Your task to perform on an android device: delete the emails in spam in the gmail app Image 0: 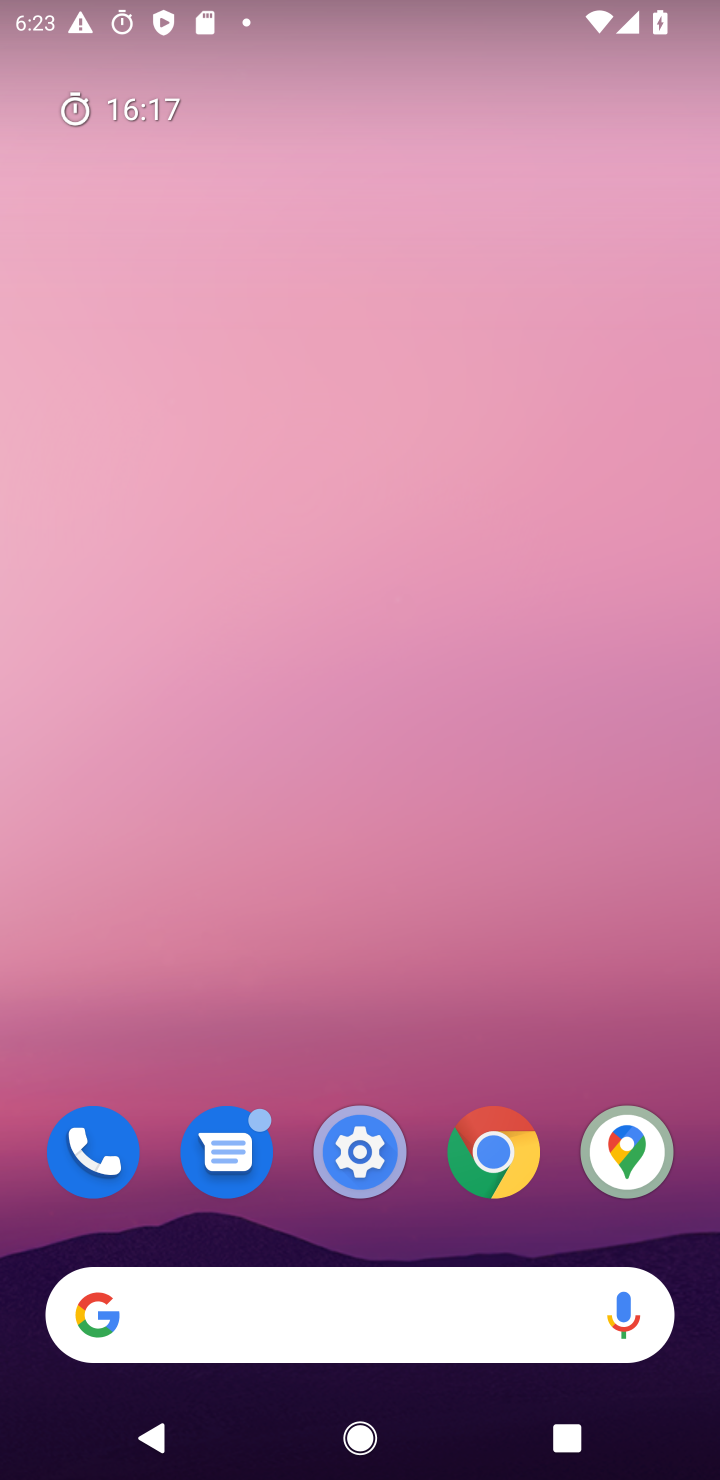
Step 0: drag from (447, 879) to (479, 223)
Your task to perform on an android device: delete the emails in spam in the gmail app Image 1: 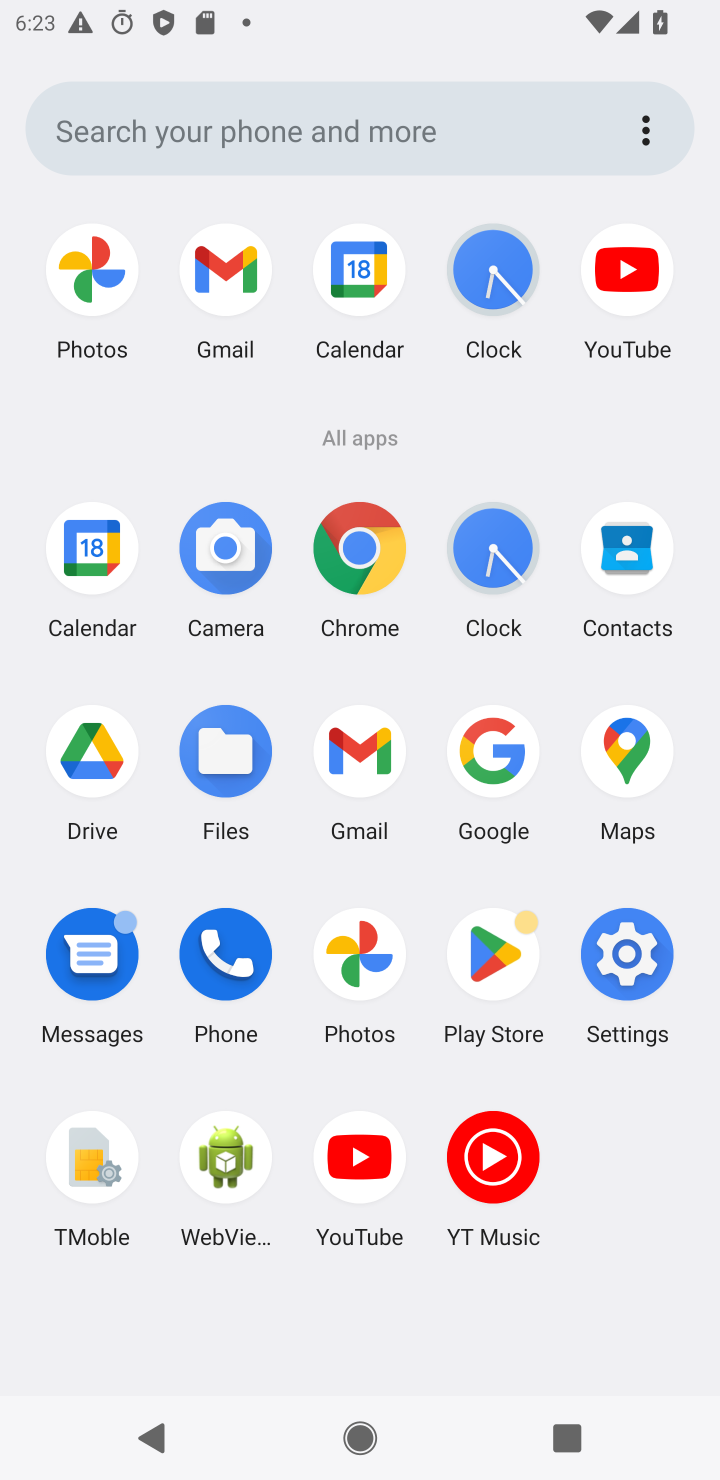
Step 1: click (357, 747)
Your task to perform on an android device: delete the emails in spam in the gmail app Image 2: 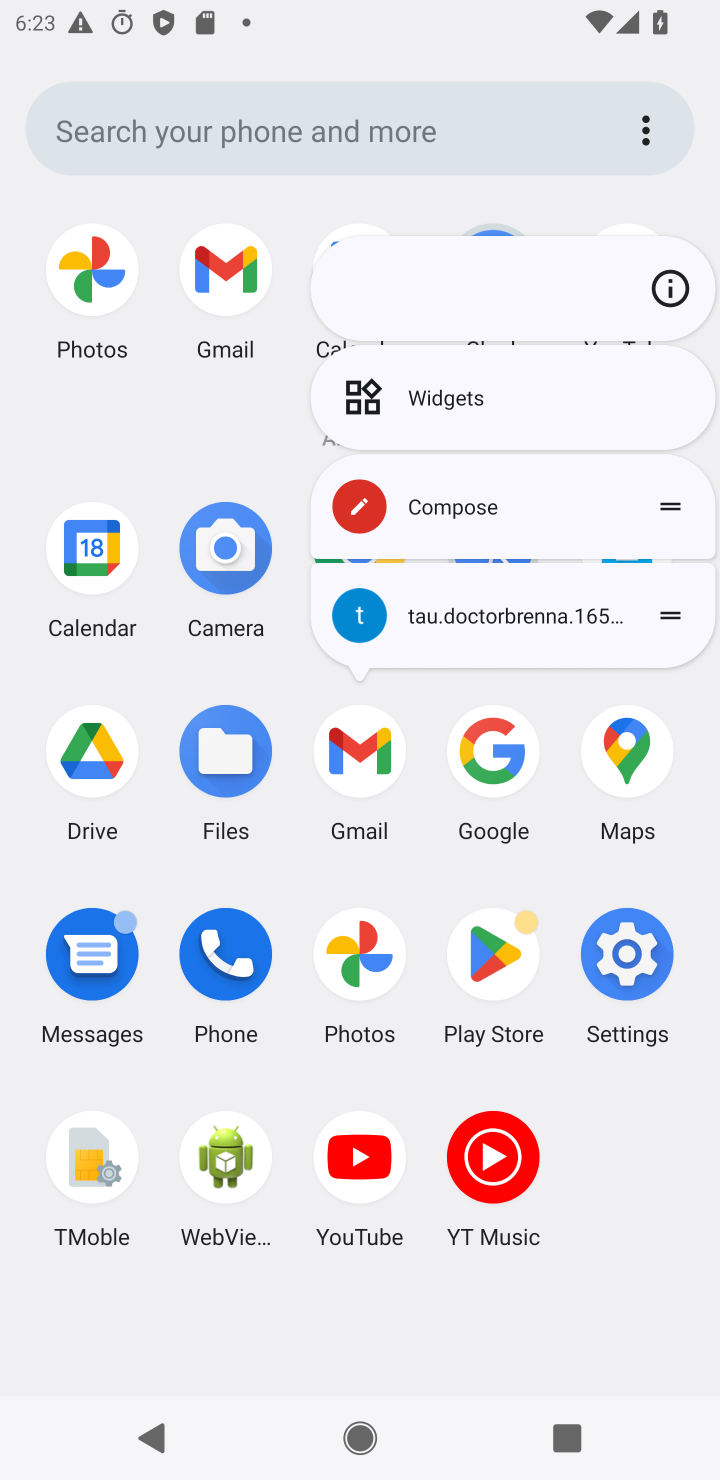
Step 2: click (358, 751)
Your task to perform on an android device: delete the emails in spam in the gmail app Image 3: 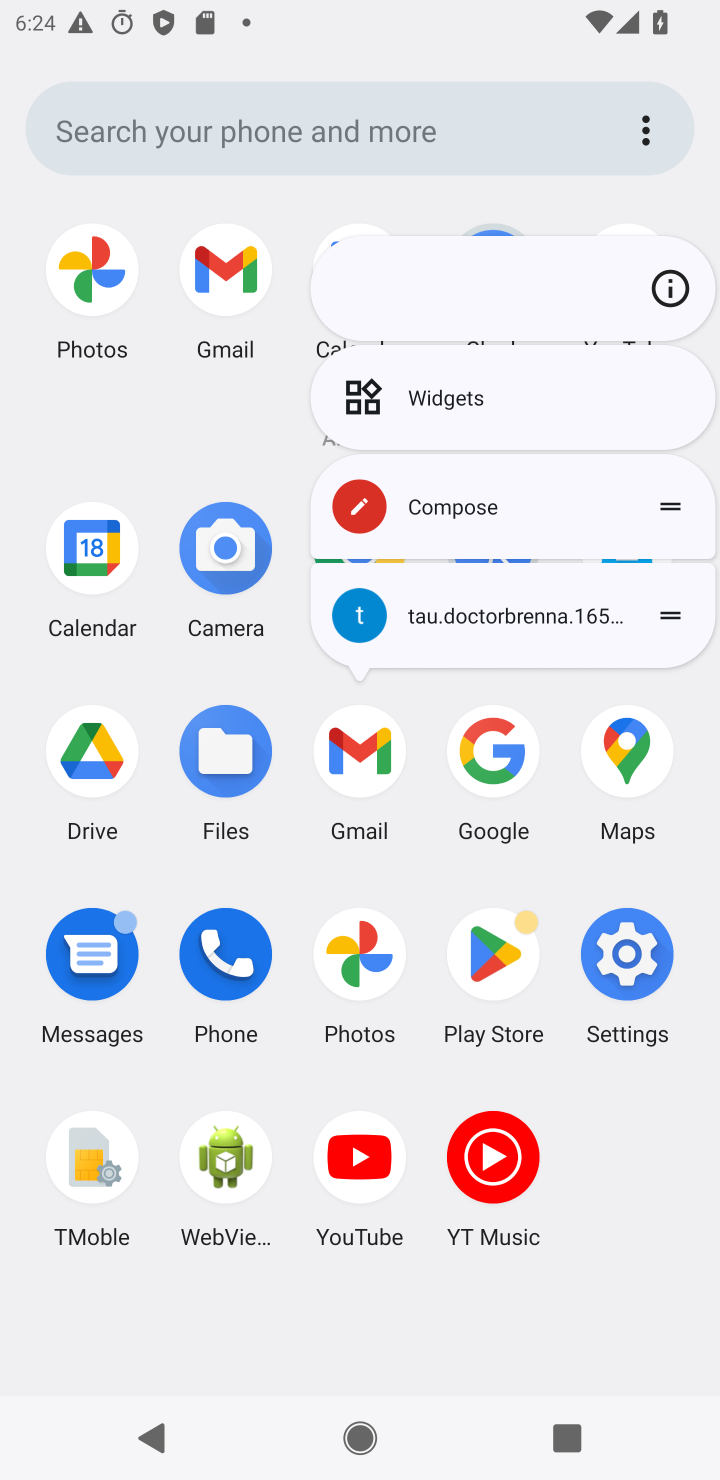
Step 3: click (347, 757)
Your task to perform on an android device: delete the emails in spam in the gmail app Image 4: 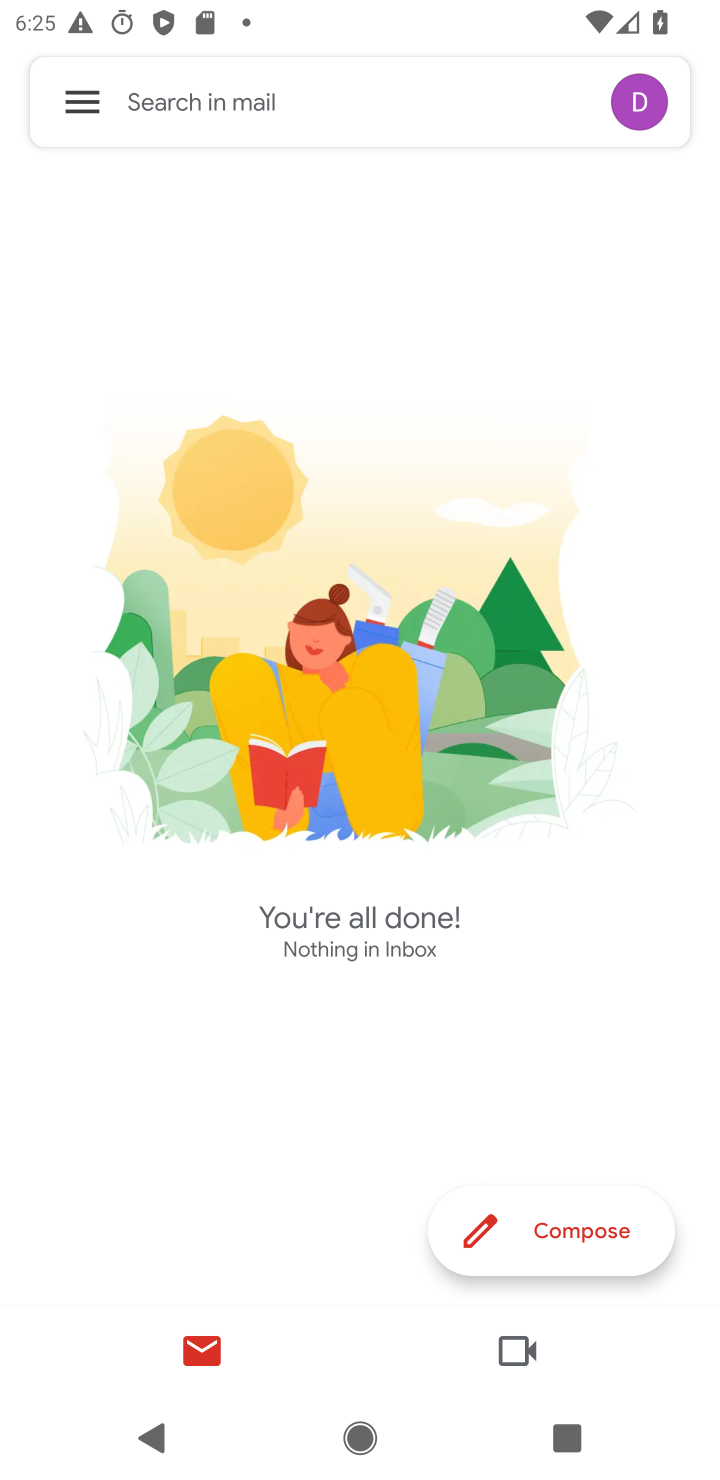
Step 4: click (82, 86)
Your task to perform on an android device: delete the emails in spam in the gmail app Image 5: 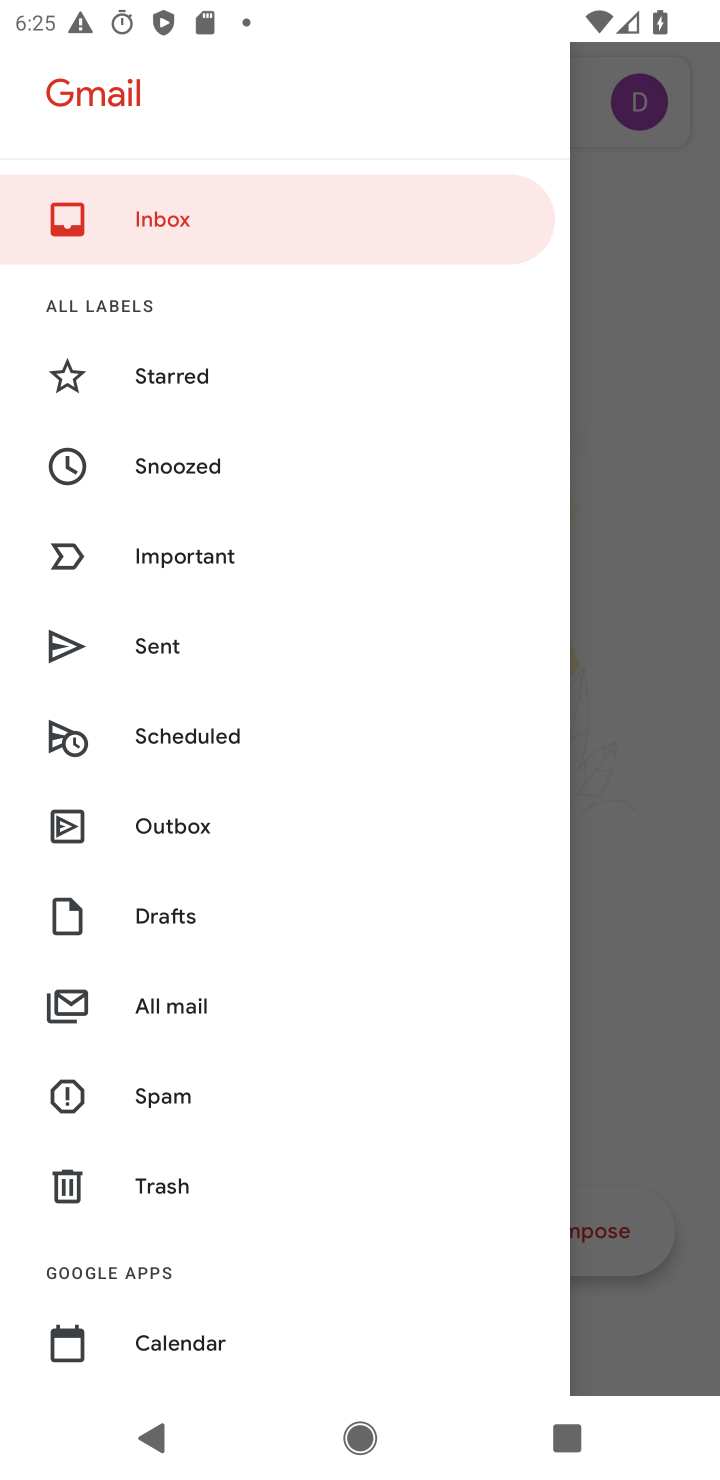
Step 5: click (173, 1098)
Your task to perform on an android device: delete the emails in spam in the gmail app Image 6: 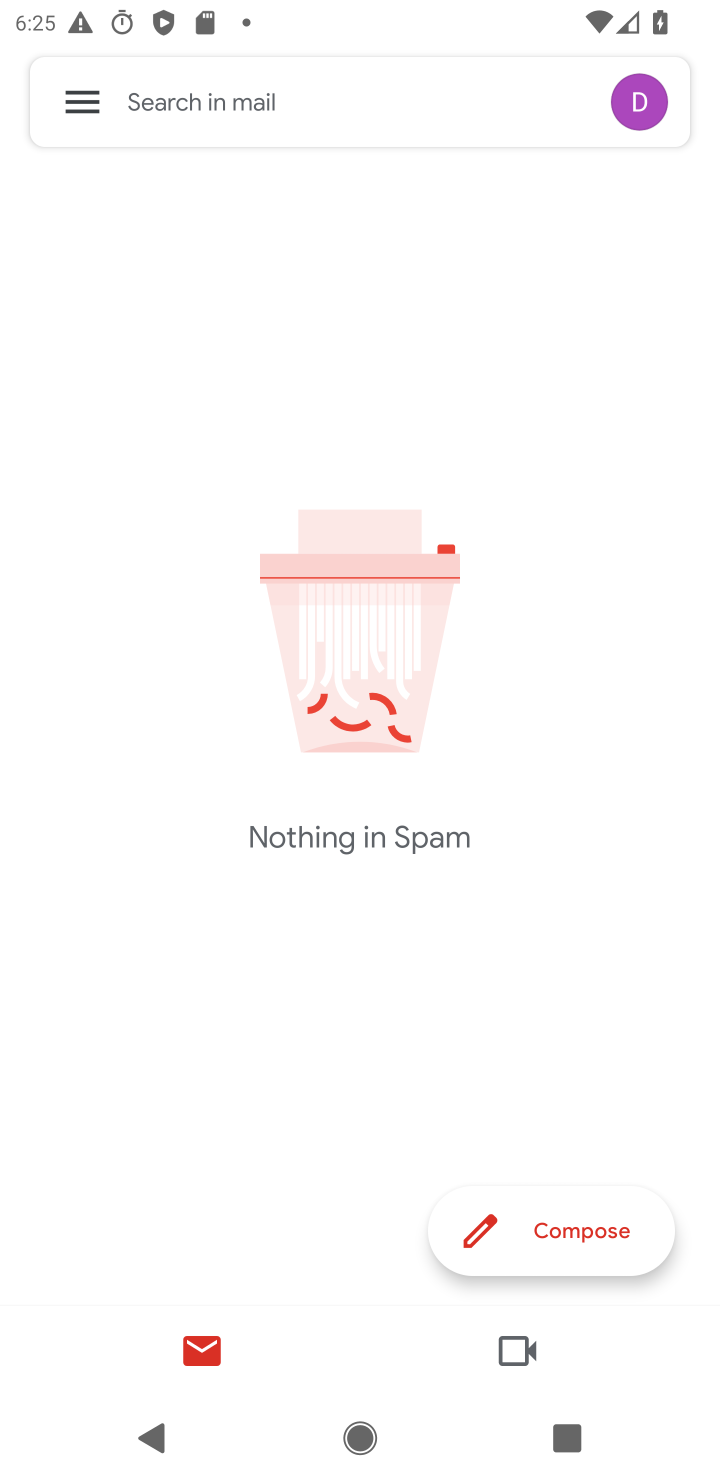
Step 6: task complete